Your task to perform on an android device: delete the emails in spam in the gmail app Image 0: 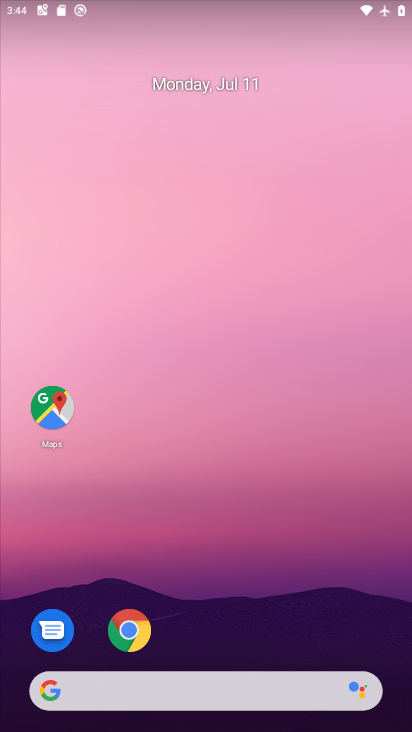
Step 0: drag from (262, 638) to (280, 197)
Your task to perform on an android device: delete the emails in spam in the gmail app Image 1: 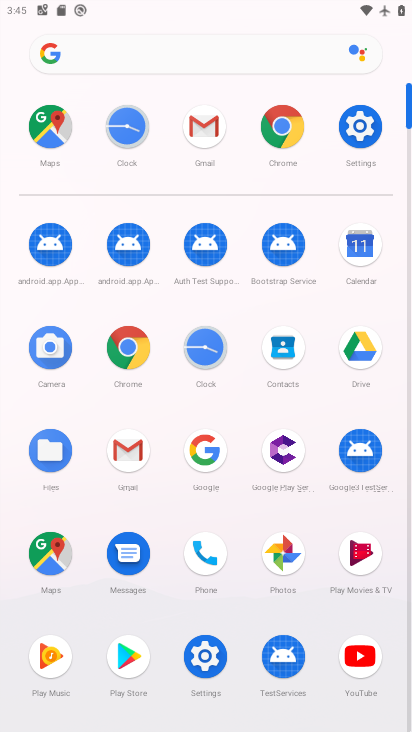
Step 1: click (211, 154)
Your task to perform on an android device: delete the emails in spam in the gmail app Image 2: 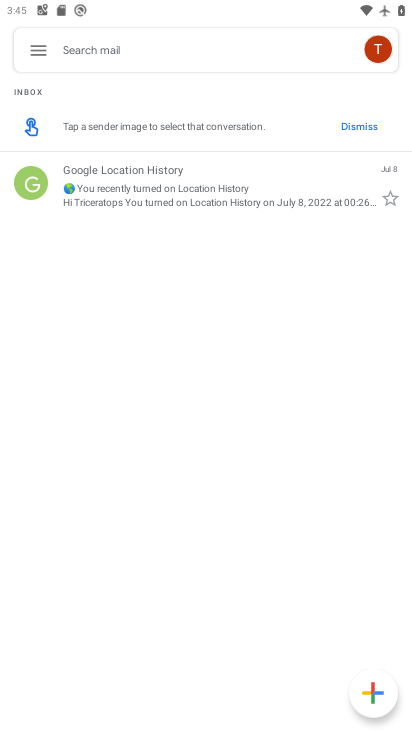
Step 2: click (30, 51)
Your task to perform on an android device: delete the emails in spam in the gmail app Image 3: 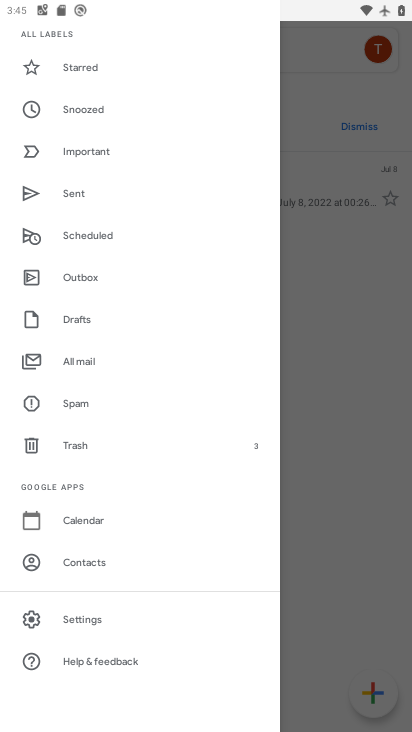
Step 3: click (39, 397)
Your task to perform on an android device: delete the emails in spam in the gmail app Image 4: 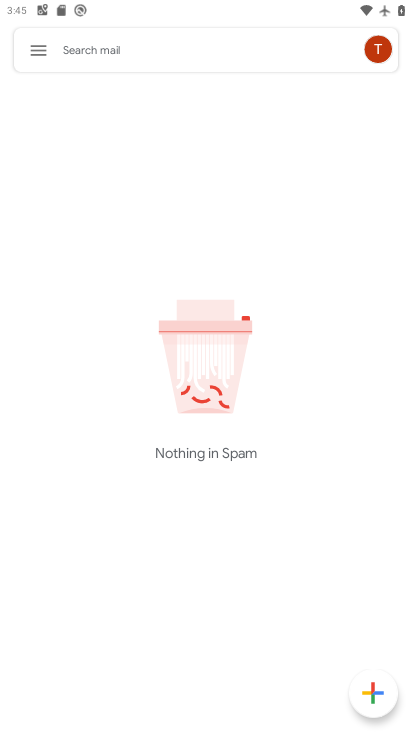
Step 4: task complete